Your task to perform on an android device: Go to ESPN.com Image 0: 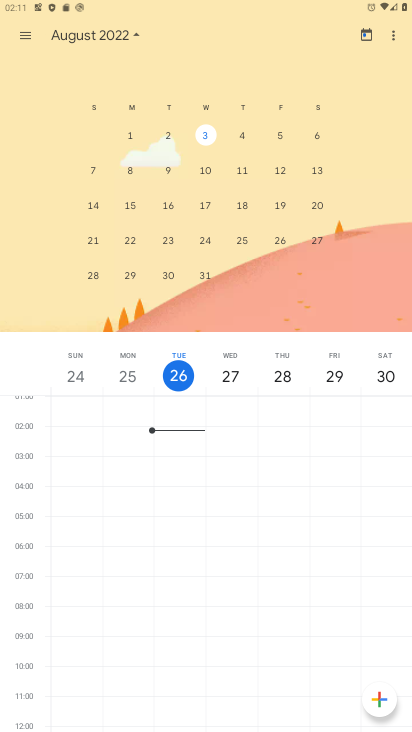
Step 0: press home button
Your task to perform on an android device: Go to ESPN.com Image 1: 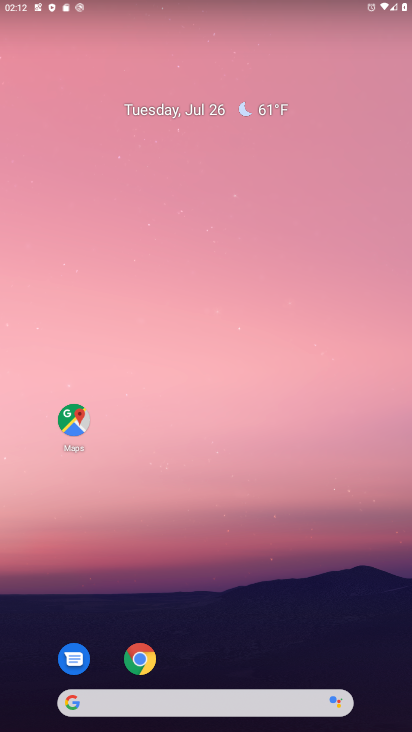
Step 1: drag from (318, 559) to (280, 51)
Your task to perform on an android device: Go to ESPN.com Image 2: 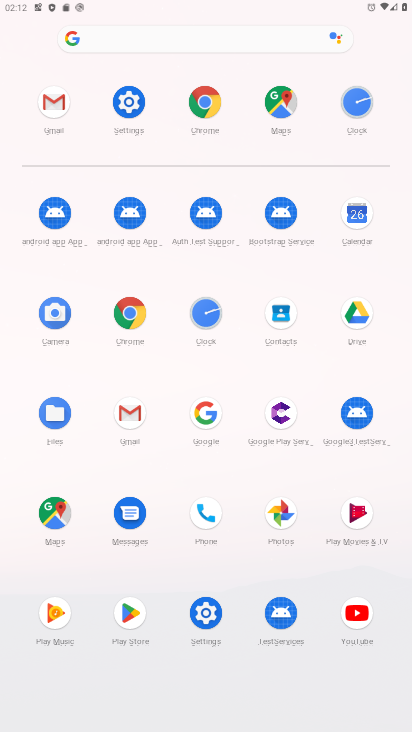
Step 2: click (205, 104)
Your task to perform on an android device: Go to ESPN.com Image 3: 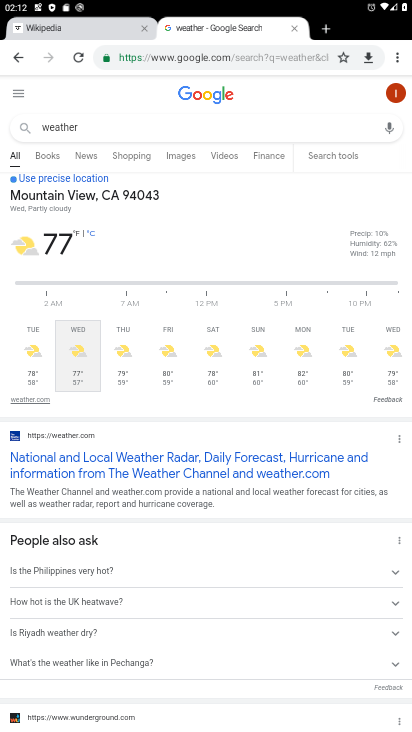
Step 3: click (205, 55)
Your task to perform on an android device: Go to ESPN.com Image 4: 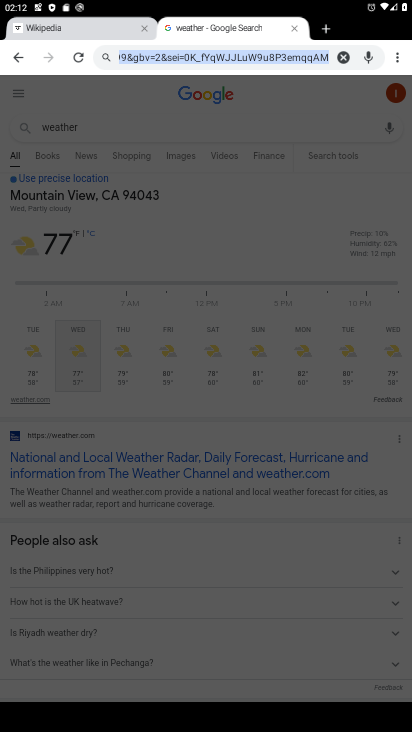
Step 4: type "espn.com"
Your task to perform on an android device: Go to ESPN.com Image 5: 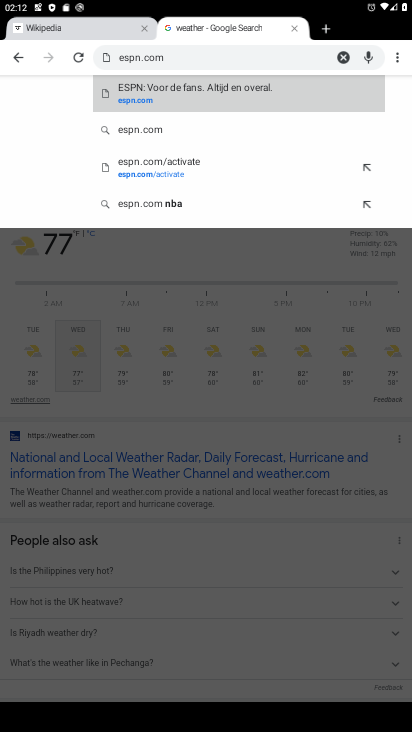
Step 5: click (138, 98)
Your task to perform on an android device: Go to ESPN.com Image 6: 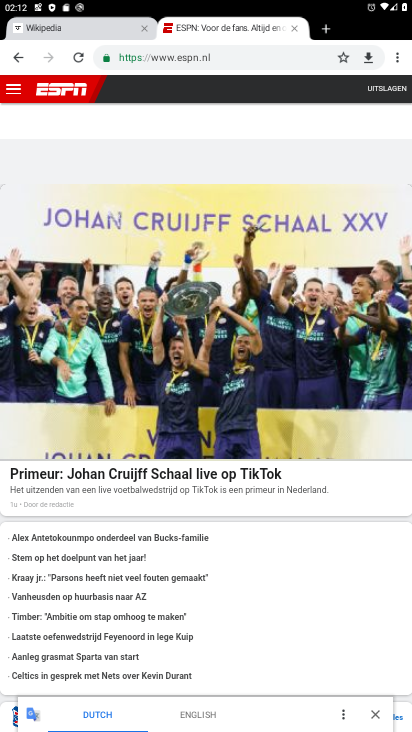
Step 6: task complete